Your task to perform on an android device: turn on data saver in the chrome app Image 0: 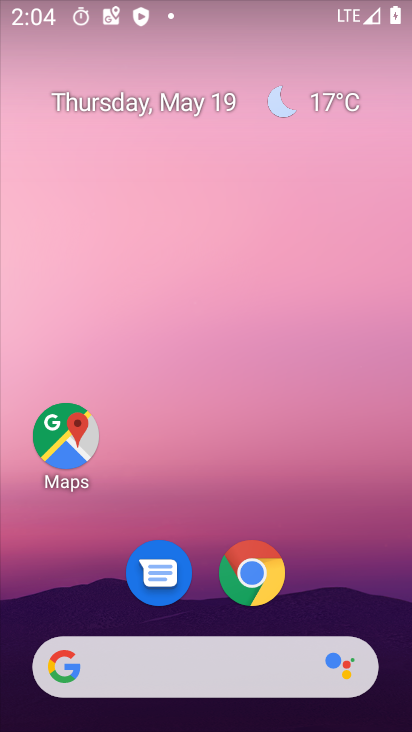
Step 0: click (263, 567)
Your task to perform on an android device: turn on data saver in the chrome app Image 1: 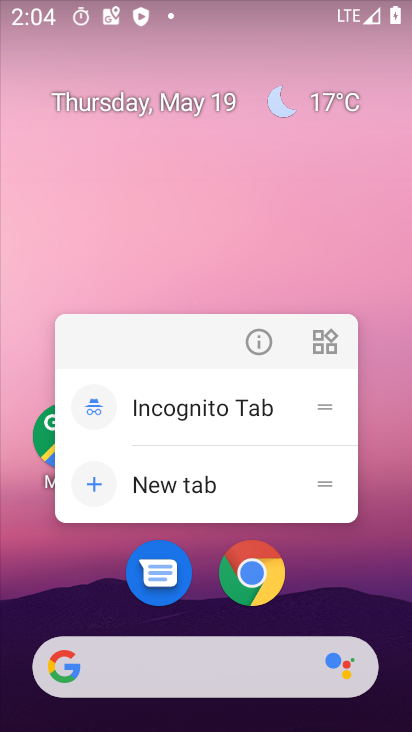
Step 1: click (250, 568)
Your task to perform on an android device: turn on data saver in the chrome app Image 2: 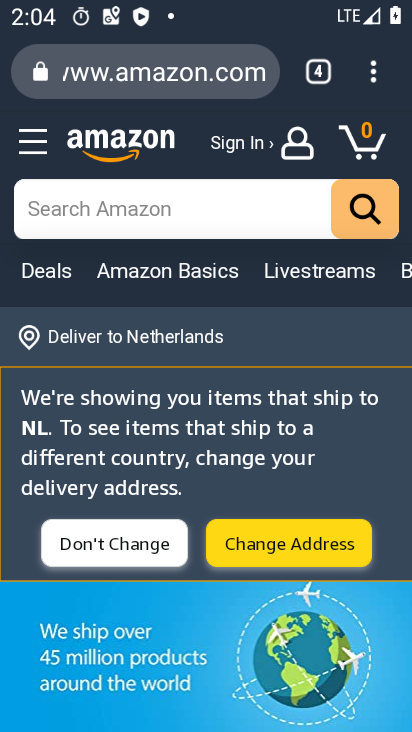
Step 2: drag from (380, 60) to (154, 573)
Your task to perform on an android device: turn on data saver in the chrome app Image 3: 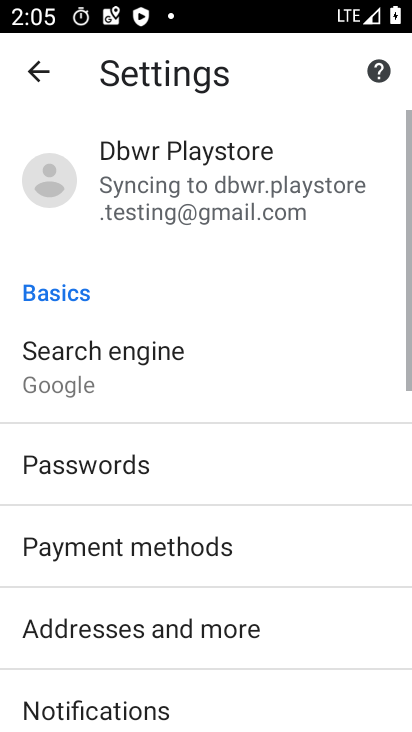
Step 3: drag from (145, 675) to (310, 86)
Your task to perform on an android device: turn on data saver in the chrome app Image 4: 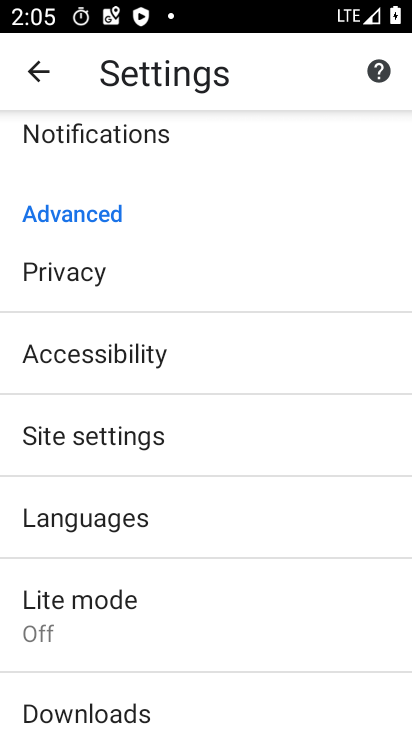
Step 4: click (147, 623)
Your task to perform on an android device: turn on data saver in the chrome app Image 5: 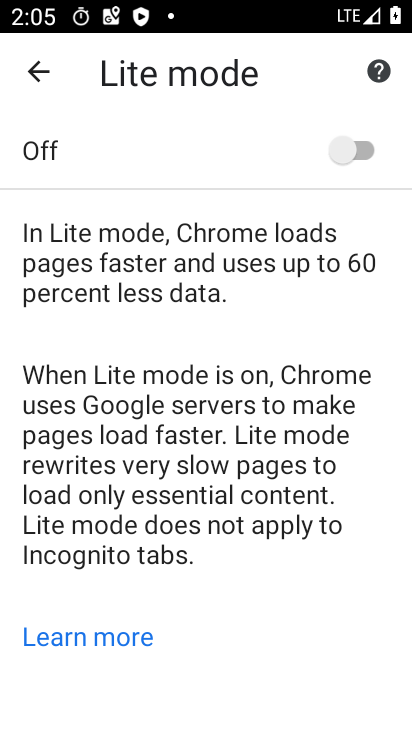
Step 5: click (356, 154)
Your task to perform on an android device: turn on data saver in the chrome app Image 6: 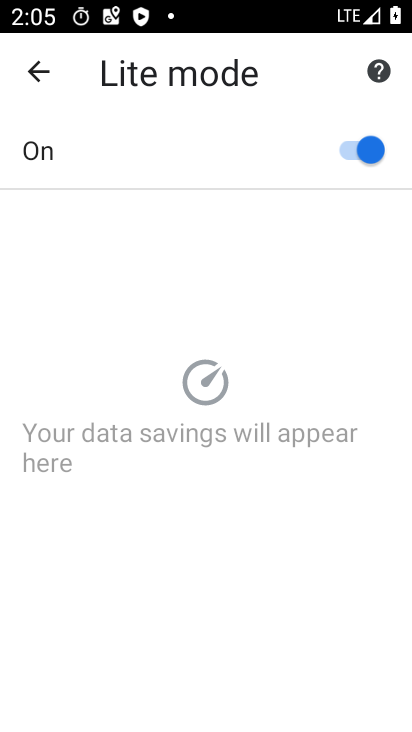
Step 6: task complete